Your task to perform on an android device: Check the settings for the Google Chrome app Image 0: 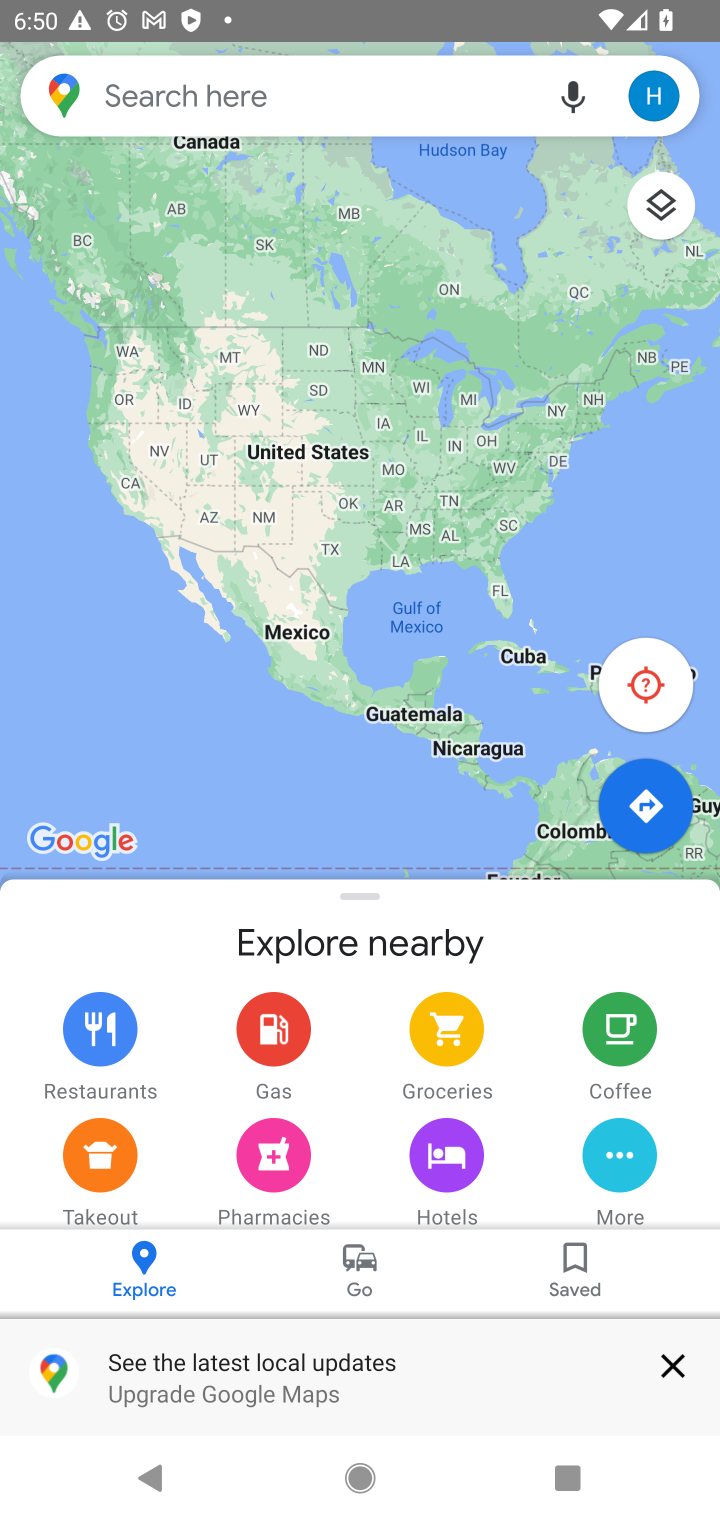
Step 0: press home button
Your task to perform on an android device: Check the settings for the Google Chrome app Image 1: 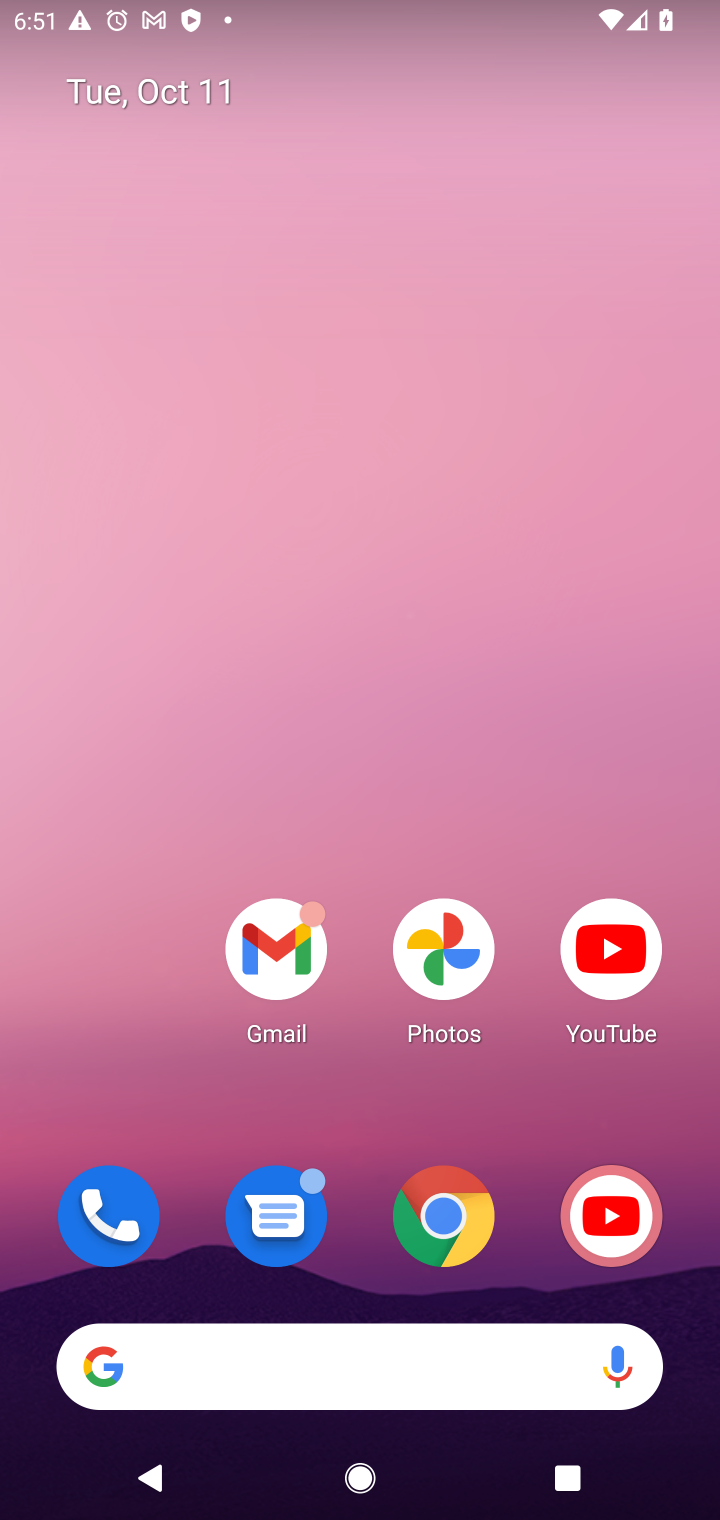
Step 1: click (443, 1241)
Your task to perform on an android device: Check the settings for the Google Chrome app Image 2: 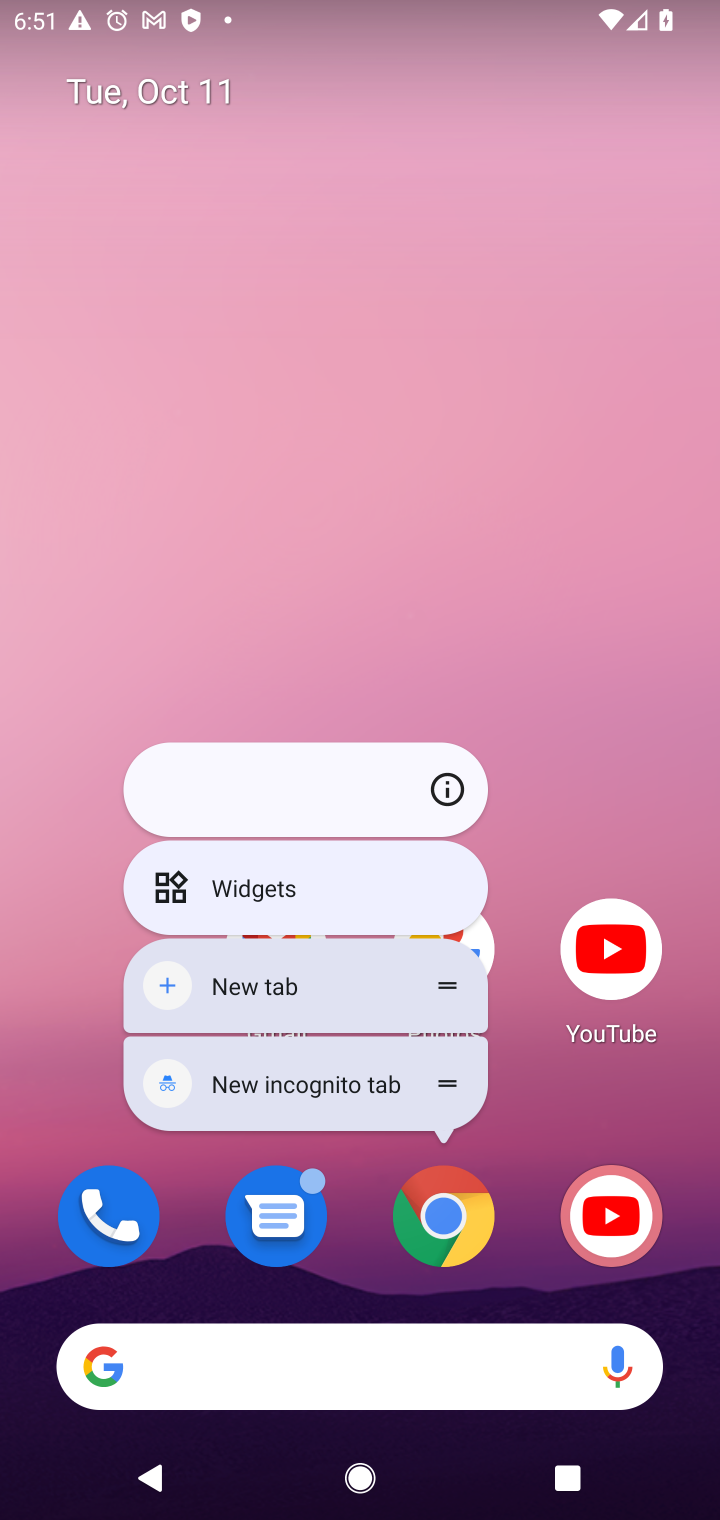
Step 2: click (441, 788)
Your task to perform on an android device: Check the settings for the Google Chrome app Image 3: 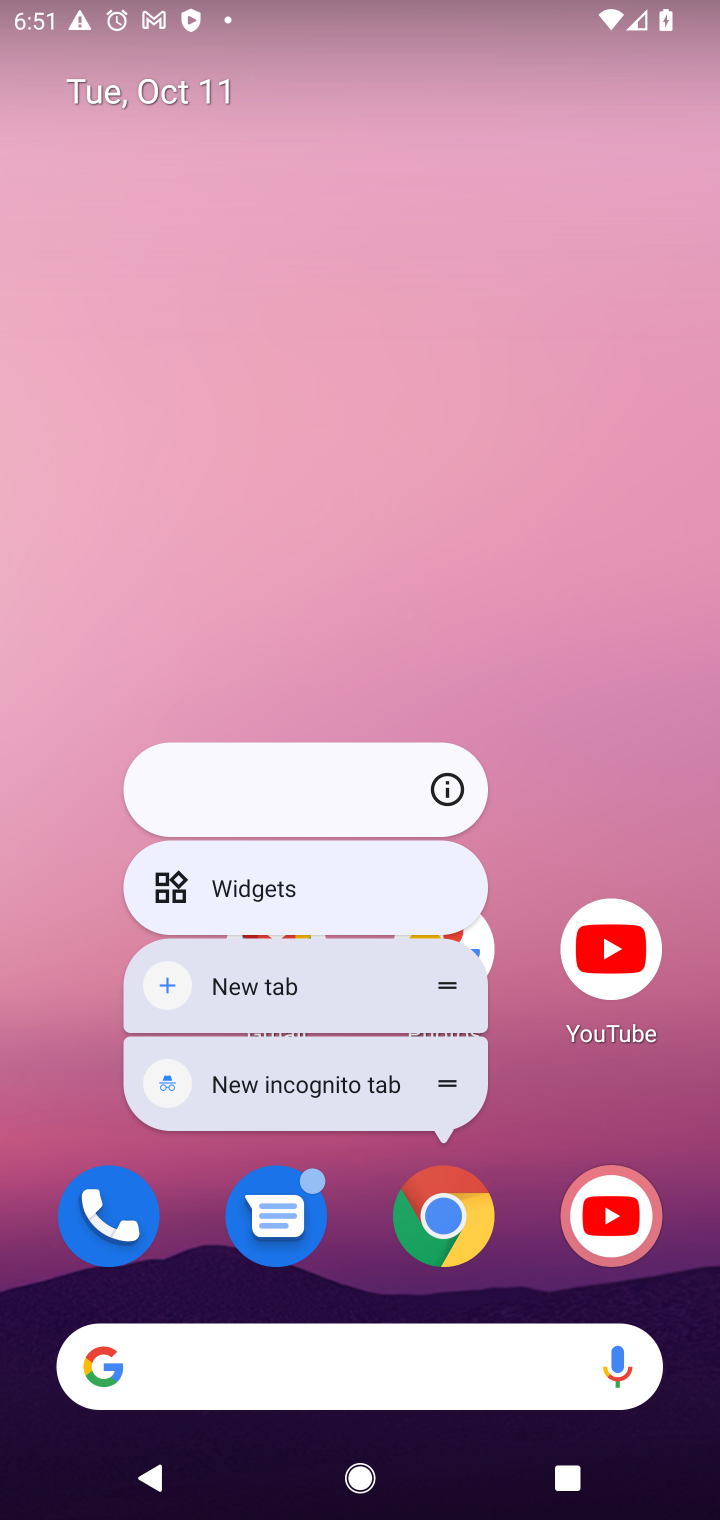
Step 3: click (436, 802)
Your task to perform on an android device: Check the settings for the Google Chrome app Image 4: 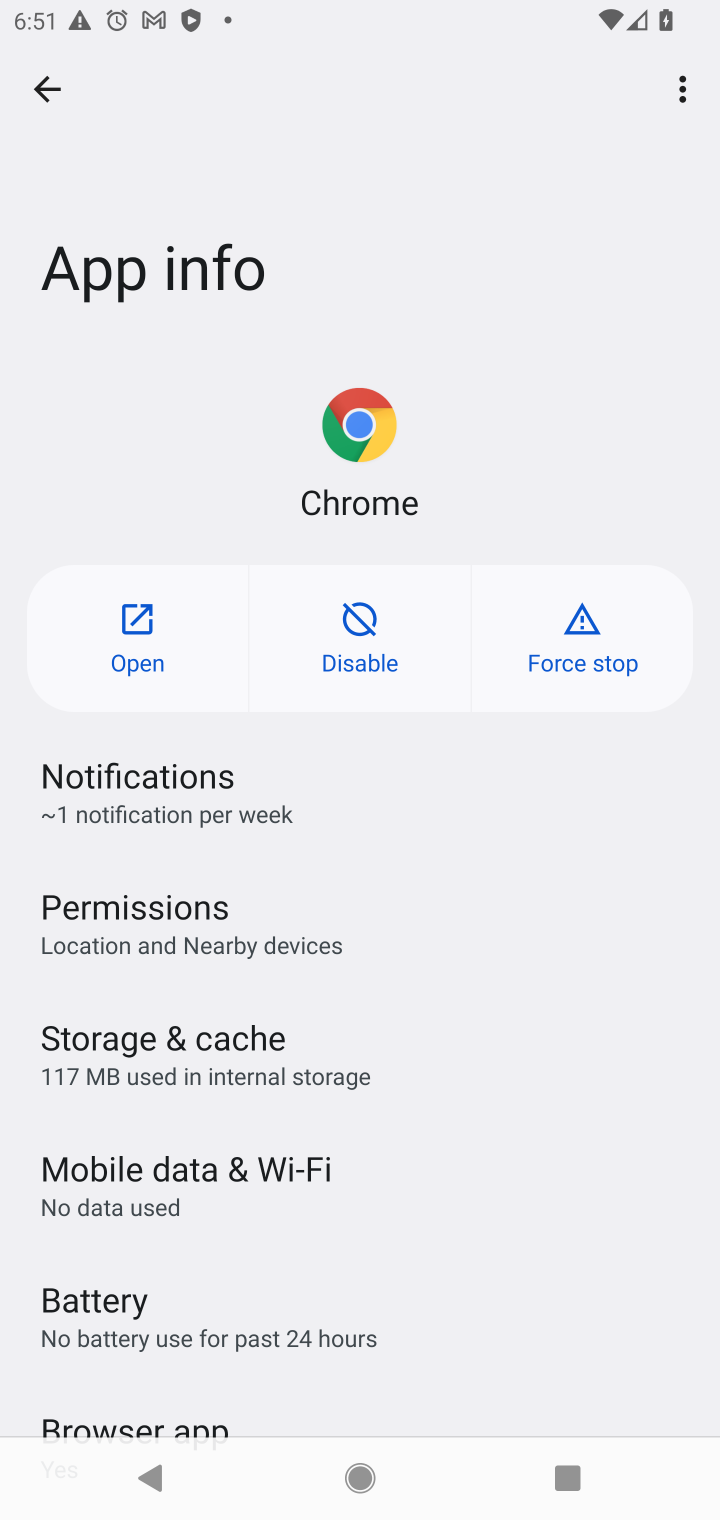
Step 4: task complete